Your task to perform on an android device: Show me recent news Image 0: 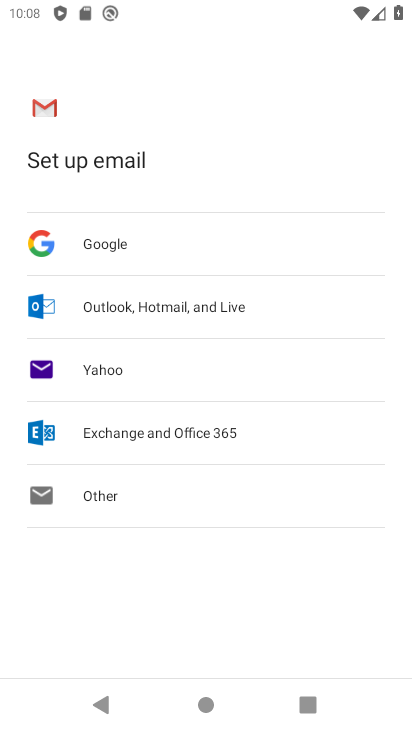
Step 0: press home button
Your task to perform on an android device: Show me recent news Image 1: 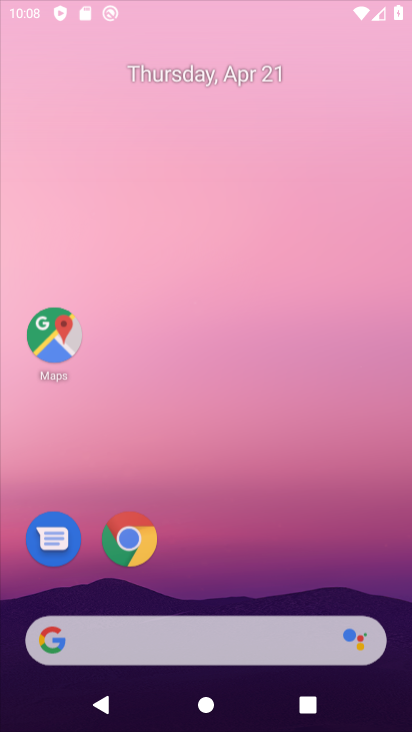
Step 1: press home button
Your task to perform on an android device: Show me recent news Image 2: 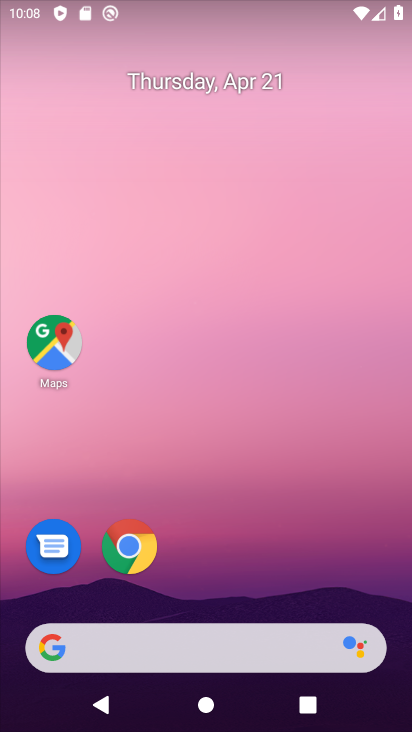
Step 2: drag from (223, 684) to (227, 238)
Your task to perform on an android device: Show me recent news Image 3: 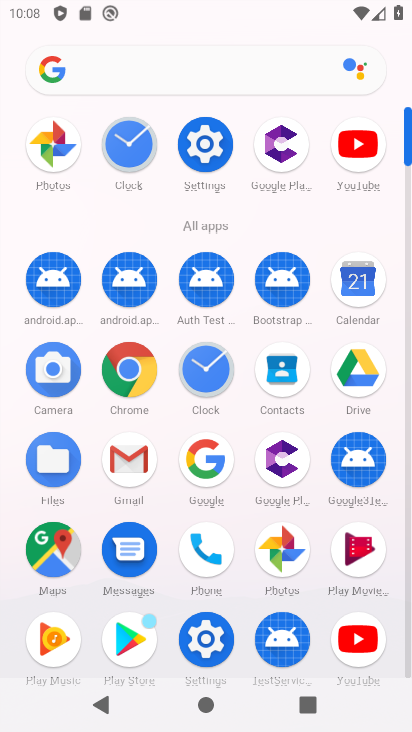
Step 3: click (152, 83)
Your task to perform on an android device: Show me recent news Image 4: 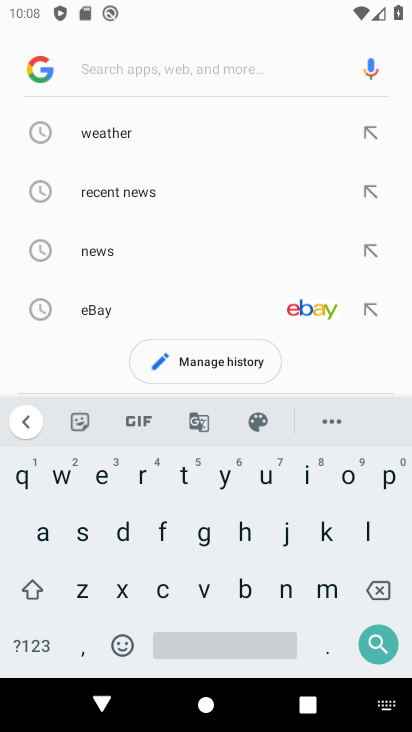
Step 4: click (138, 190)
Your task to perform on an android device: Show me recent news Image 5: 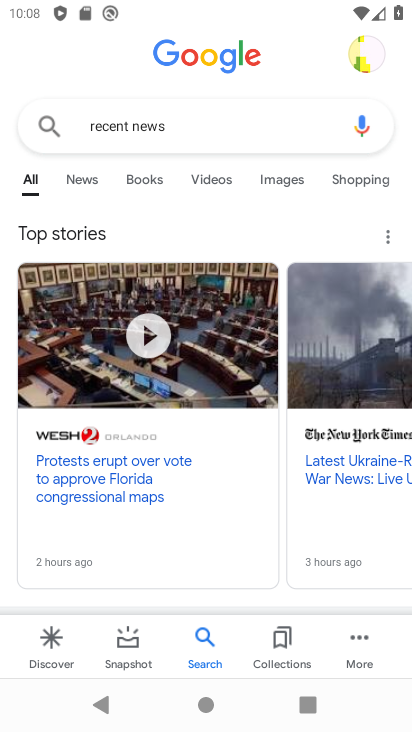
Step 5: task complete